Your task to perform on an android device: open a bookmark in the chrome app Image 0: 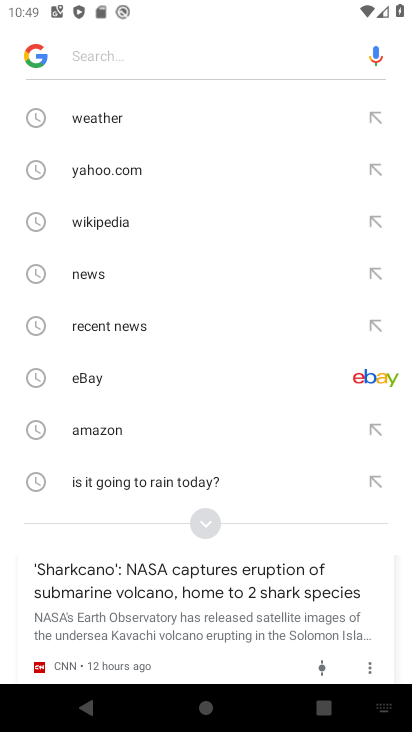
Step 0: press back button
Your task to perform on an android device: open a bookmark in the chrome app Image 1: 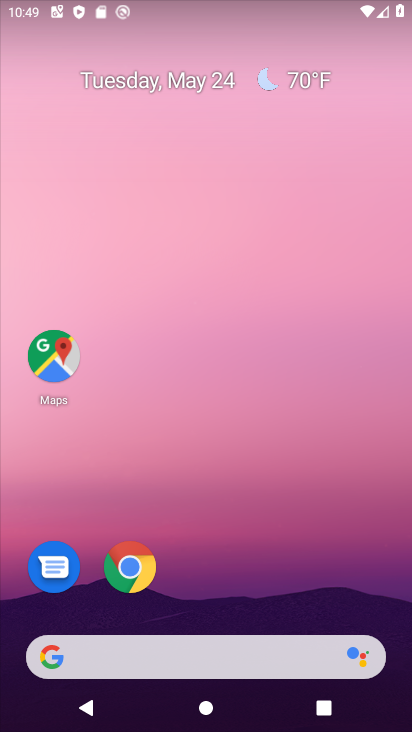
Step 1: drag from (388, 691) to (260, 250)
Your task to perform on an android device: open a bookmark in the chrome app Image 2: 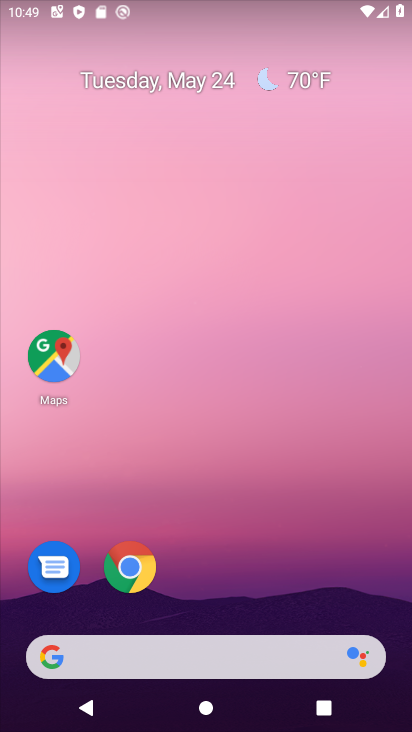
Step 2: drag from (395, 716) to (371, 332)
Your task to perform on an android device: open a bookmark in the chrome app Image 3: 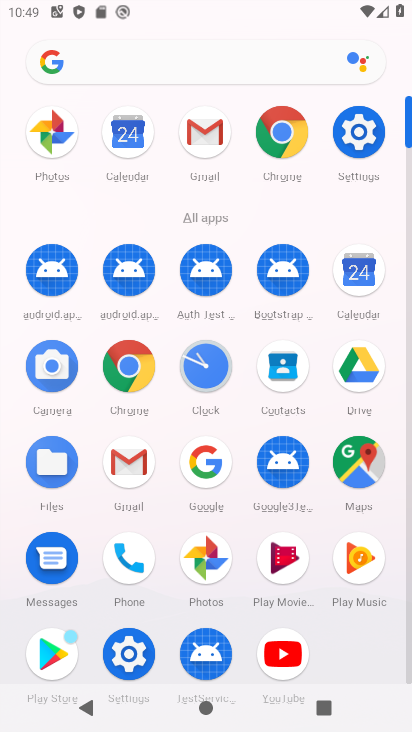
Step 3: click (282, 138)
Your task to perform on an android device: open a bookmark in the chrome app Image 4: 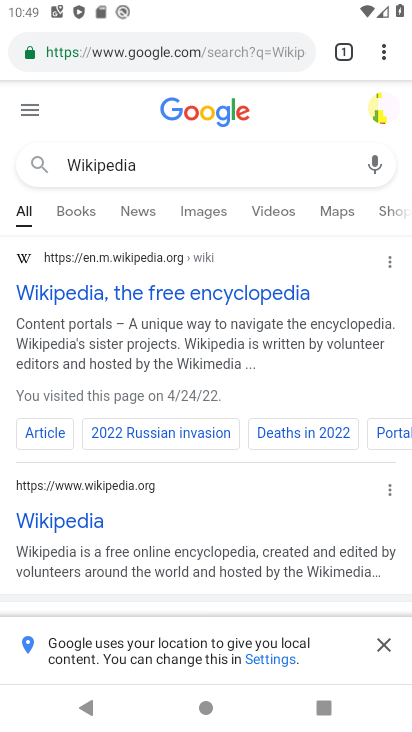
Step 4: click (384, 54)
Your task to perform on an android device: open a bookmark in the chrome app Image 5: 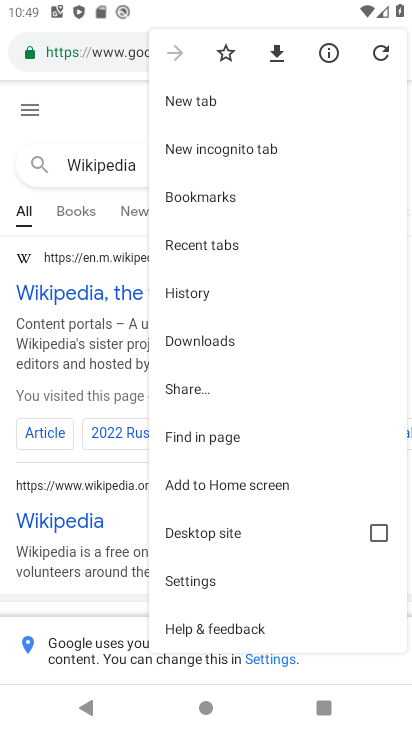
Step 5: click (204, 582)
Your task to perform on an android device: open a bookmark in the chrome app Image 6: 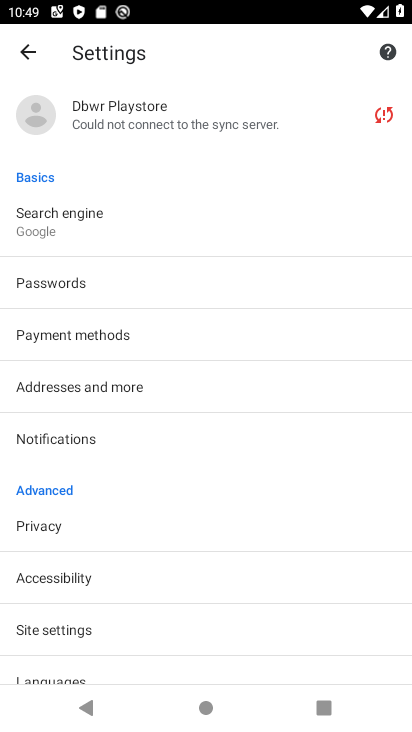
Step 6: click (28, 55)
Your task to perform on an android device: open a bookmark in the chrome app Image 7: 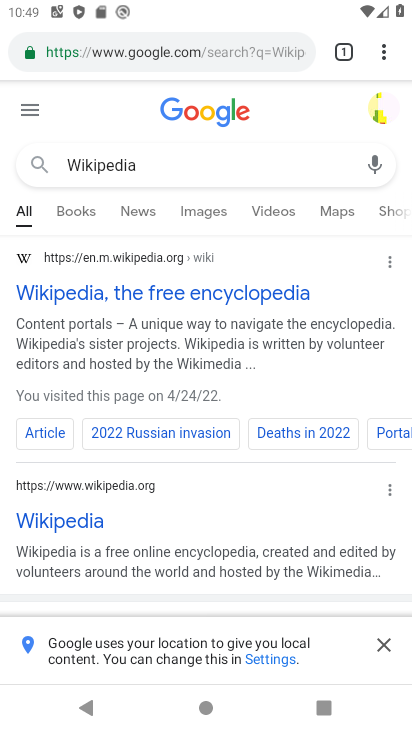
Step 7: click (381, 46)
Your task to perform on an android device: open a bookmark in the chrome app Image 8: 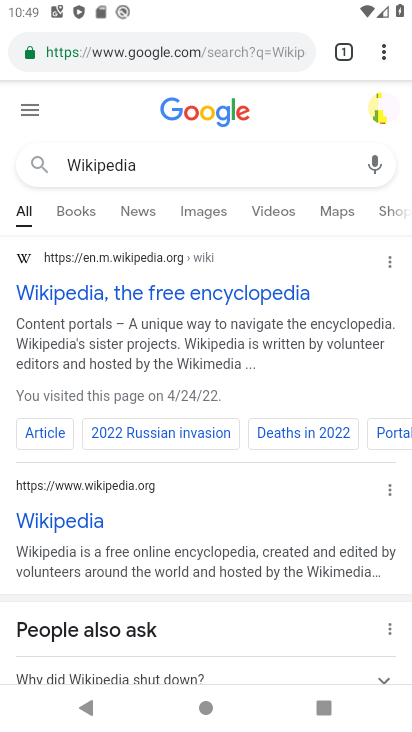
Step 8: click (384, 51)
Your task to perform on an android device: open a bookmark in the chrome app Image 9: 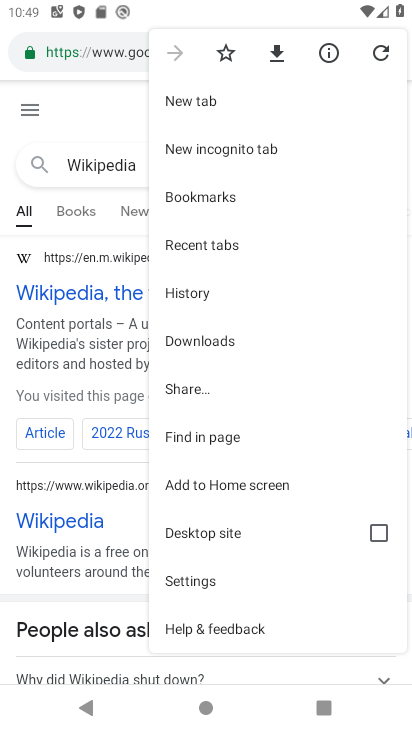
Step 9: click (196, 195)
Your task to perform on an android device: open a bookmark in the chrome app Image 10: 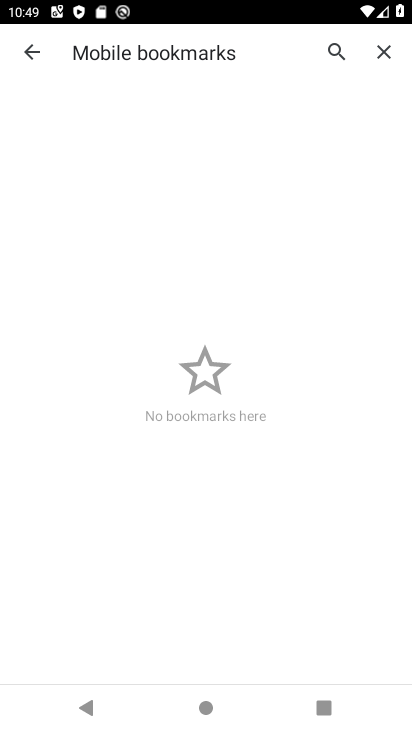
Step 10: task complete